Your task to perform on an android device: turn off wifi Image 0: 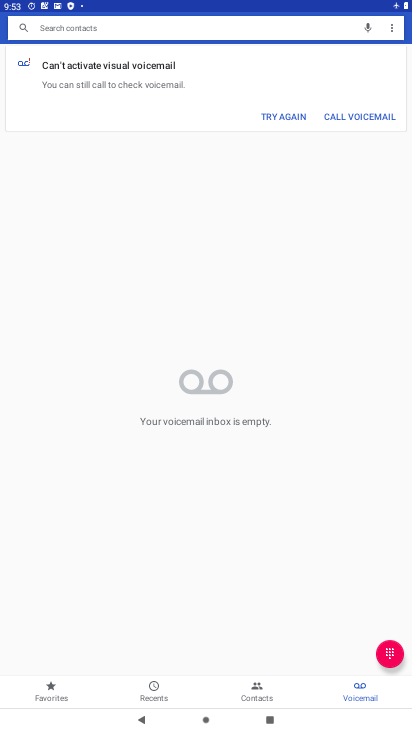
Step 0: drag from (135, 629) to (193, 197)
Your task to perform on an android device: turn off wifi Image 1: 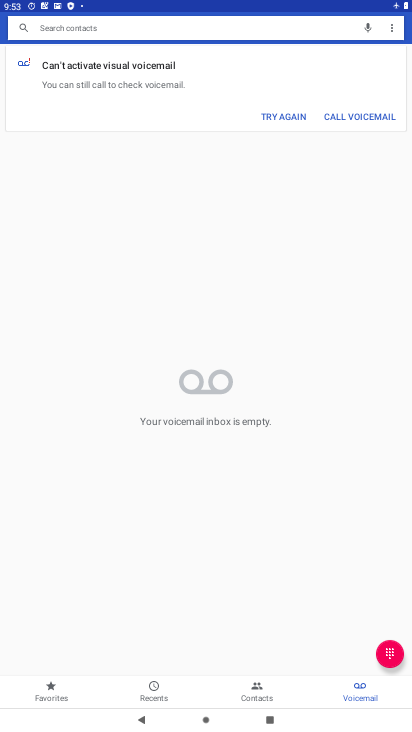
Step 1: press home button
Your task to perform on an android device: turn off wifi Image 2: 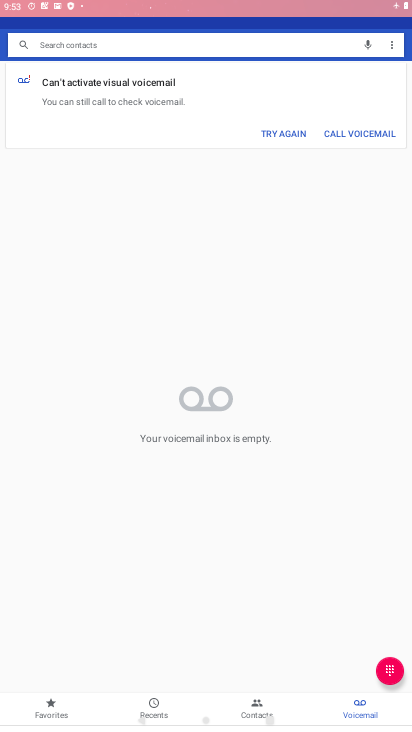
Step 2: drag from (246, 536) to (253, 66)
Your task to perform on an android device: turn off wifi Image 3: 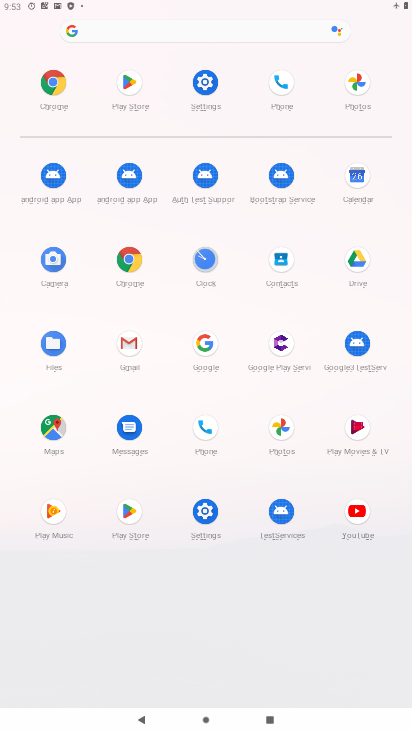
Step 3: click (200, 84)
Your task to perform on an android device: turn off wifi Image 4: 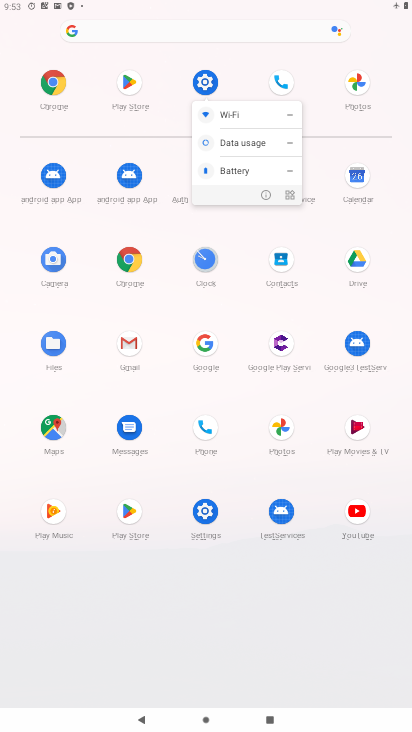
Step 4: click (265, 188)
Your task to perform on an android device: turn off wifi Image 5: 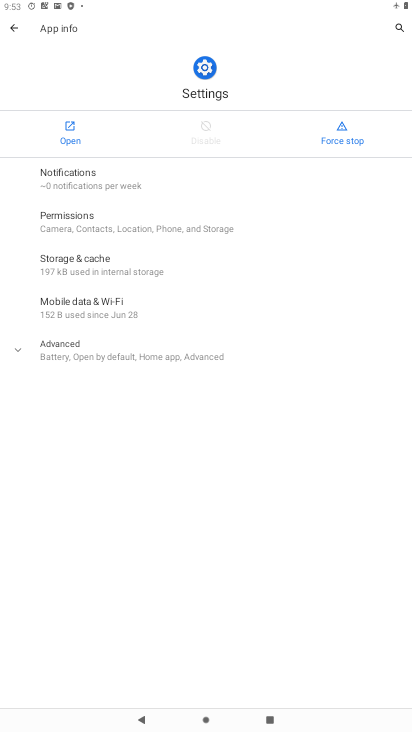
Step 5: click (65, 120)
Your task to perform on an android device: turn off wifi Image 6: 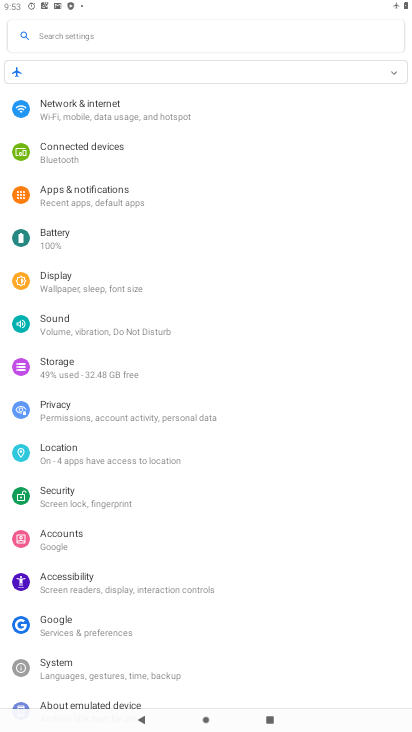
Step 6: click (56, 96)
Your task to perform on an android device: turn off wifi Image 7: 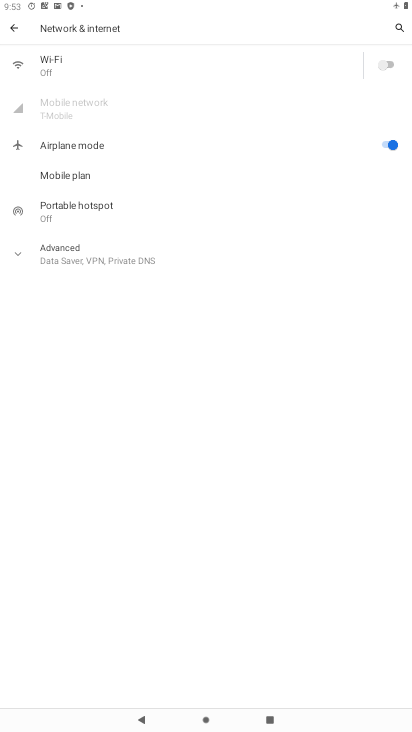
Step 7: click (77, 56)
Your task to perform on an android device: turn off wifi Image 8: 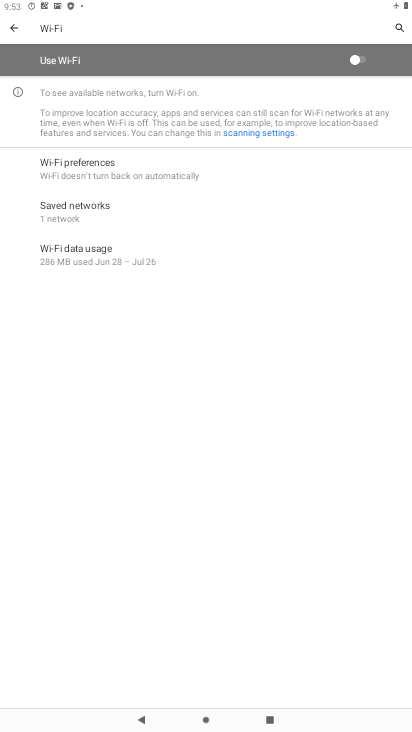
Step 8: task complete